Your task to perform on an android device: Open Google Maps and go to "Timeline" Image 0: 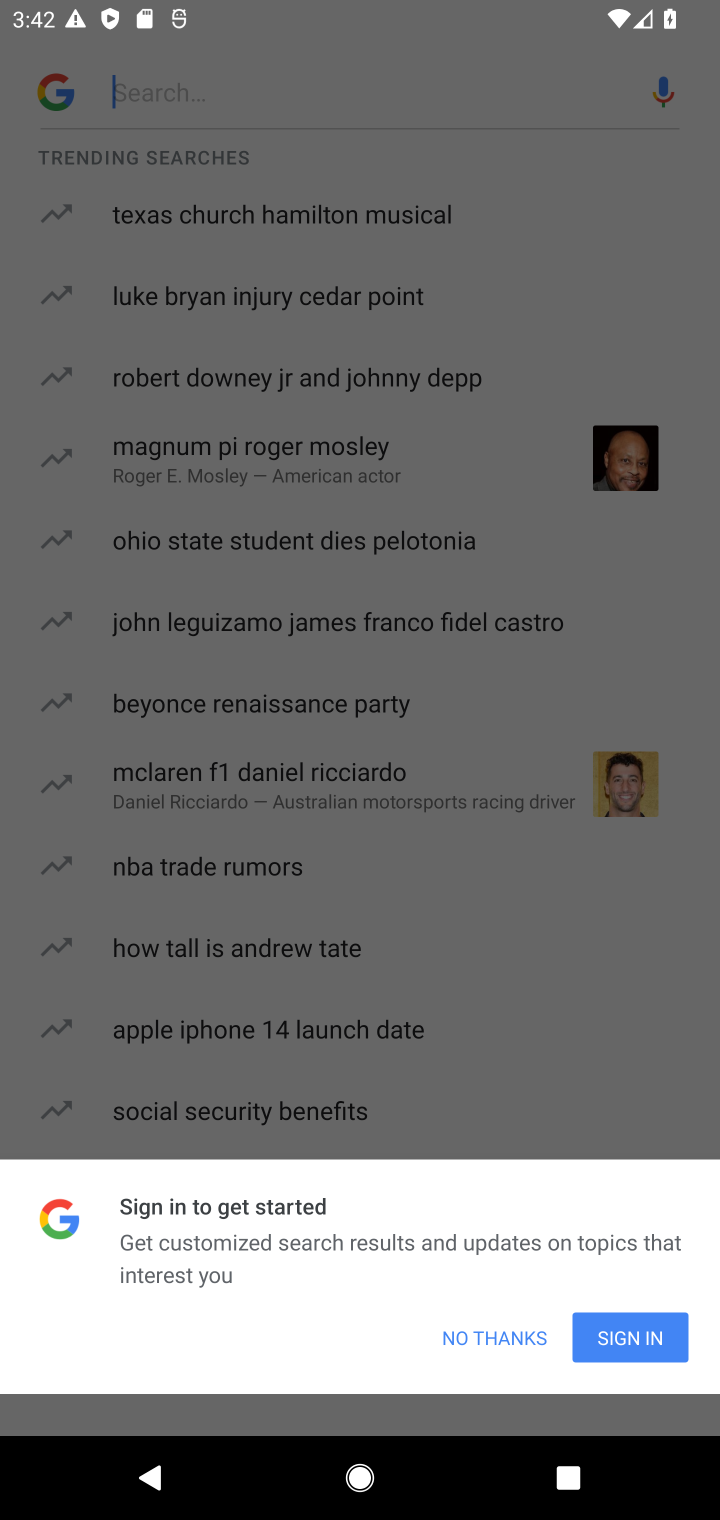
Step 0: press home button
Your task to perform on an android device: Open Google Maps and go to "Timeline" Image 1: 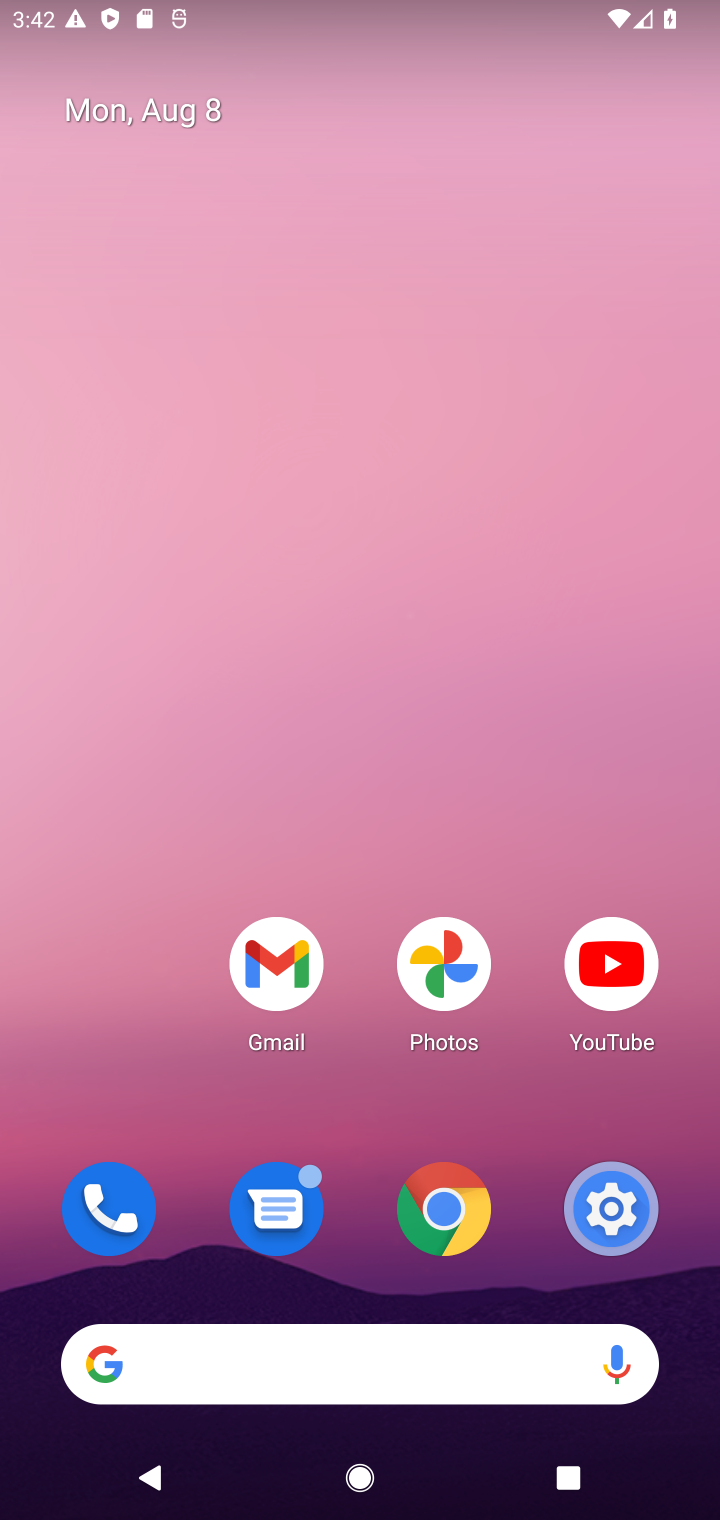
Step 1: drag from (547, 1096) to (474, 230)
Your task to perform on an android device: Open Google Maps and go to "Timeline" Image 2: 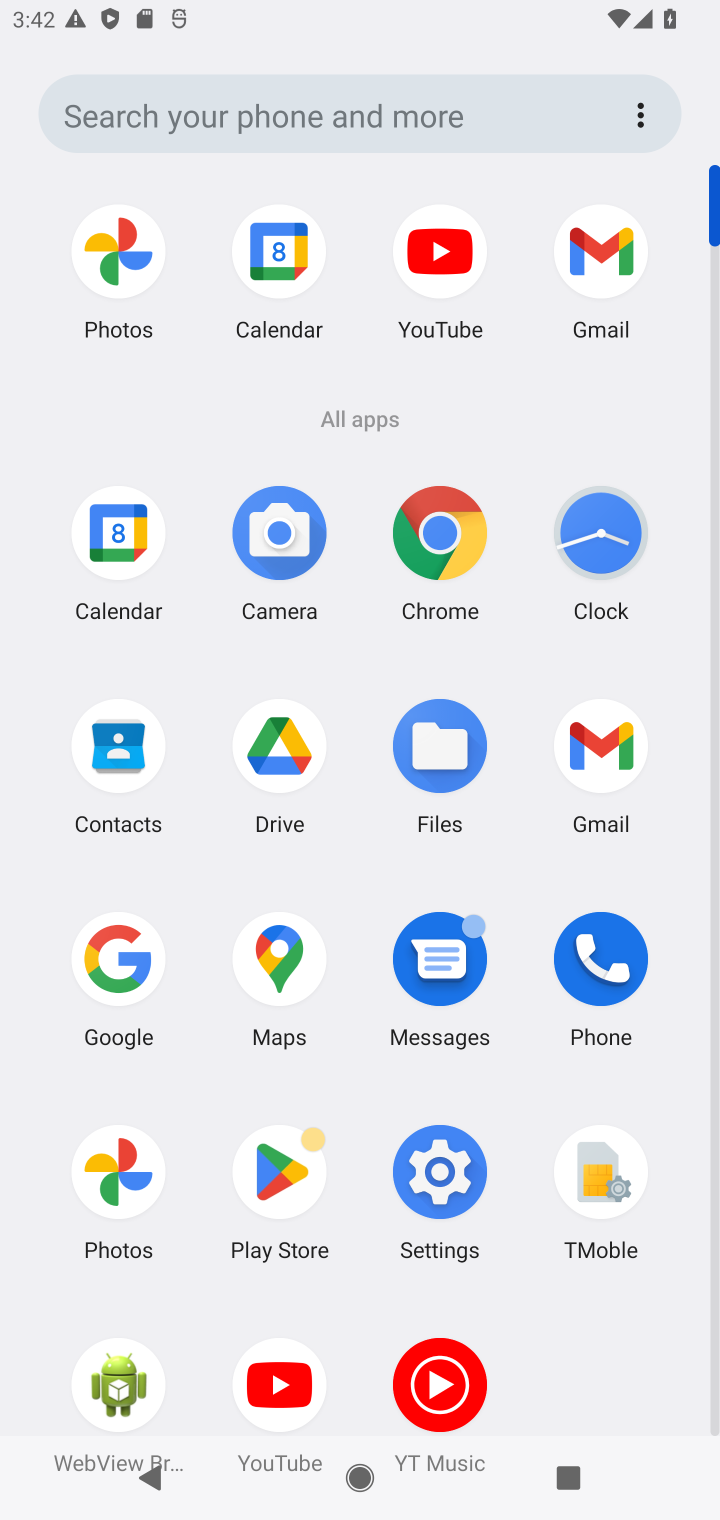
Step 2: click (299, 989)
Your task to perform on an android device: Open Google Maps and go to "Timeline" Image 3: 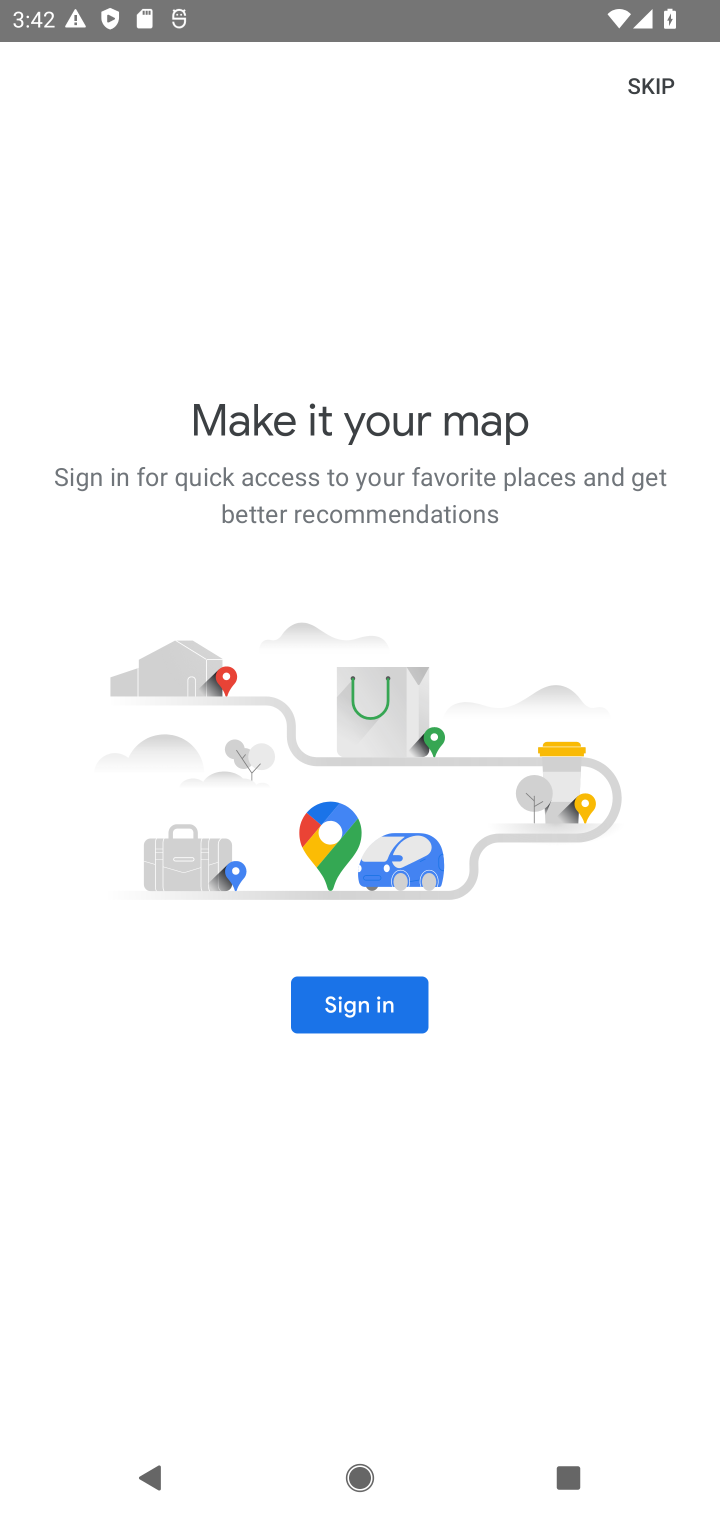
Step 3: task complete